Your task to perform on an android device: Go to Amazon Image 0: 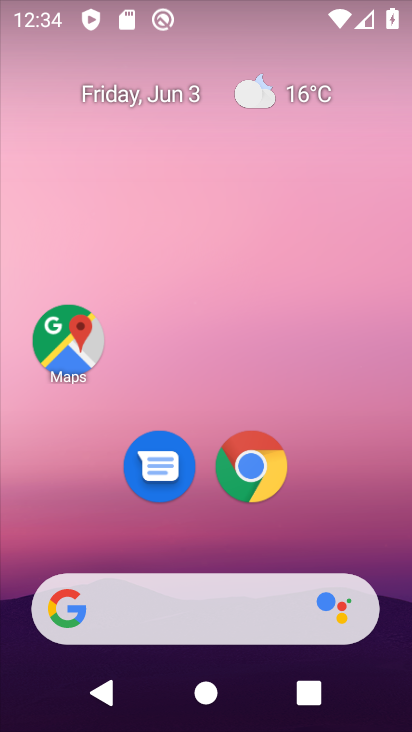
Step 0: drag from (231, 575) to (250, 123)
Your task to perform on an android device: Go to Amazon Image 1: 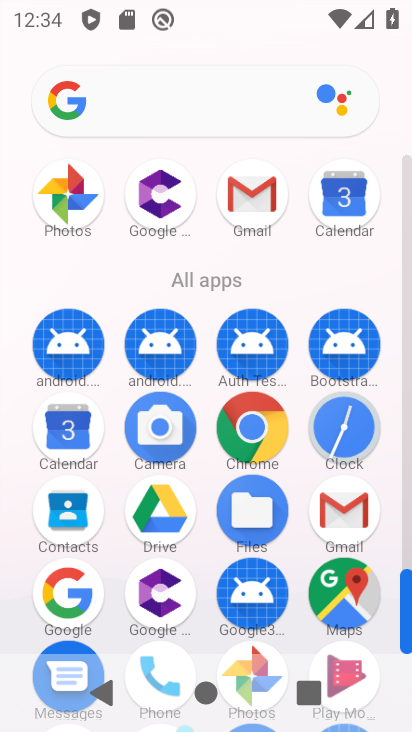
Step 1: click (80, 589)
Your task to perform on an android device: Go to Amazon Image 2: 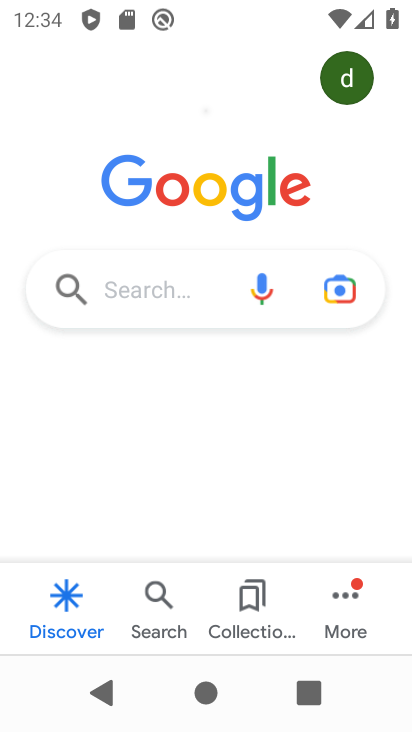
Step 2: click (157, 291)
Your task to perform on an android device: Go to Amazon Image 3: 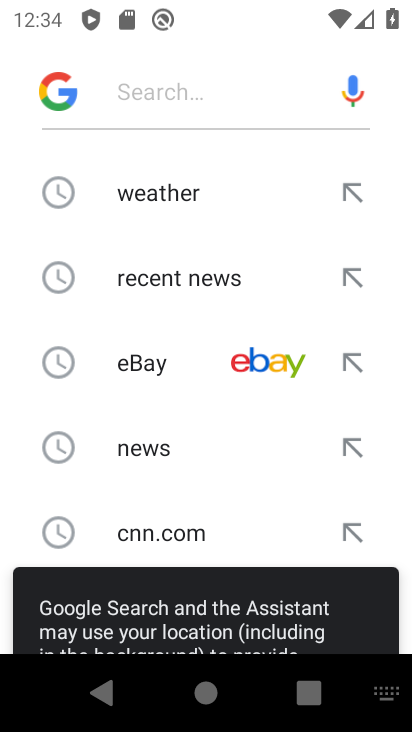
Step 3: drag from (149, 520) to (150, 194)
Your task to perform on an android device: Go to Amazon Image 4: 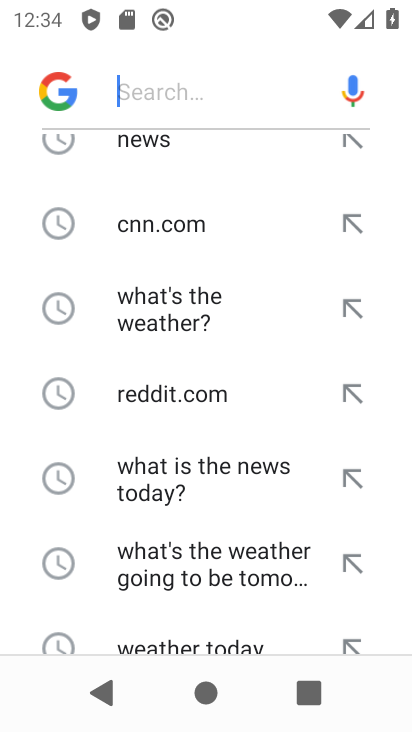
Step 4: drag from (160, 497) to (160, 227)
Your task to perform on an android device: Go to Amazon Image 5: 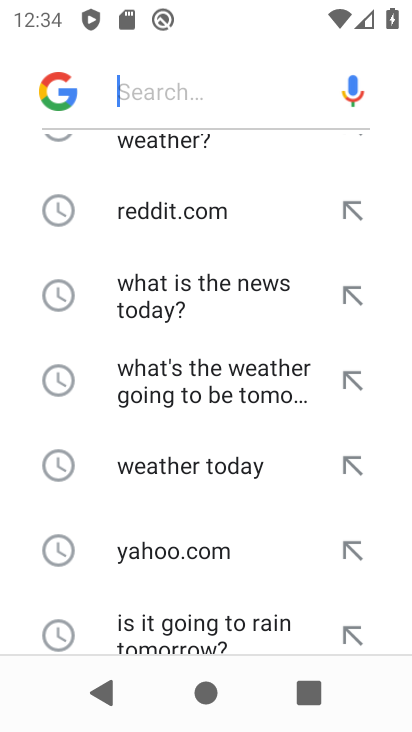
Step 5: drag from (149, 498) to (170, 300)
Your task to perform on an android device: Go to Amazon Image 6: 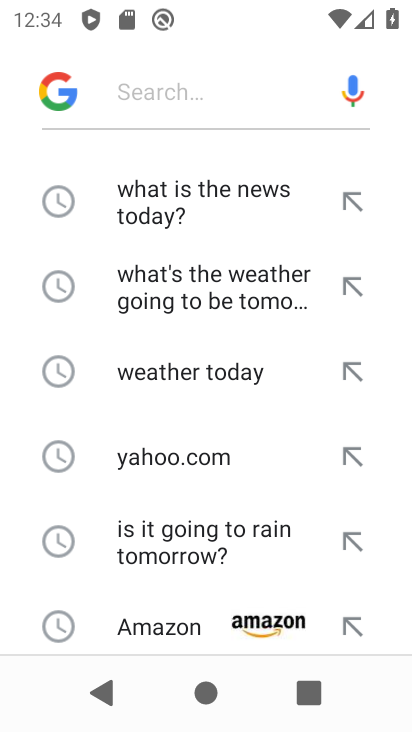
Step 6: click (167, 622)
Your task to perform on an android device: Go to Amazon Image 7: 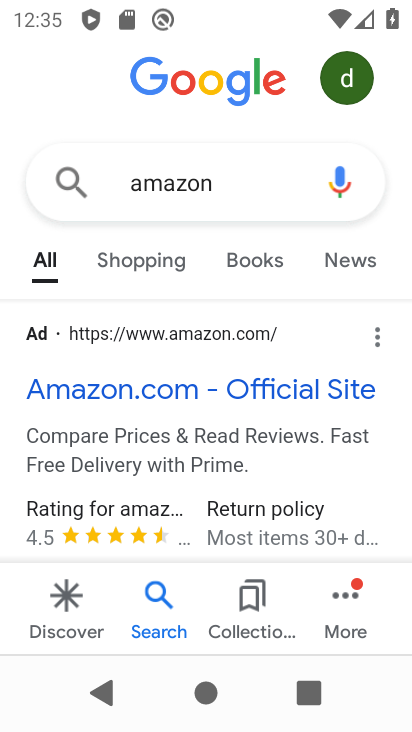
Step 7: task complete